Your task to perform on an android device: delete location history Image 0: 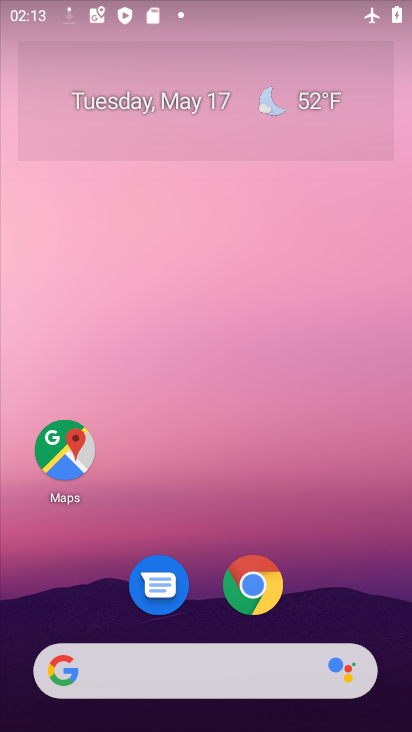
Step 0: drag from (327, 590) to (336, 3)
Your task to perform on an android device: delete location history Image 1: 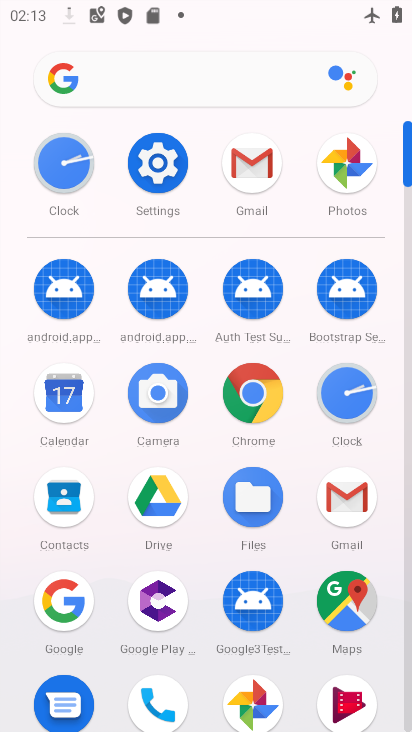
Step 1: click (350, 602)
Your task to perform on an android device: delete location history Image 2: 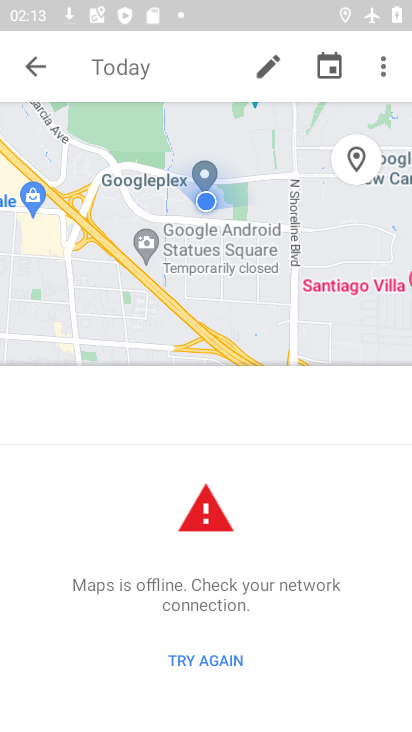
Step 2: click (34, 61)
Your task to perform on an android device: delete location history Image 3: 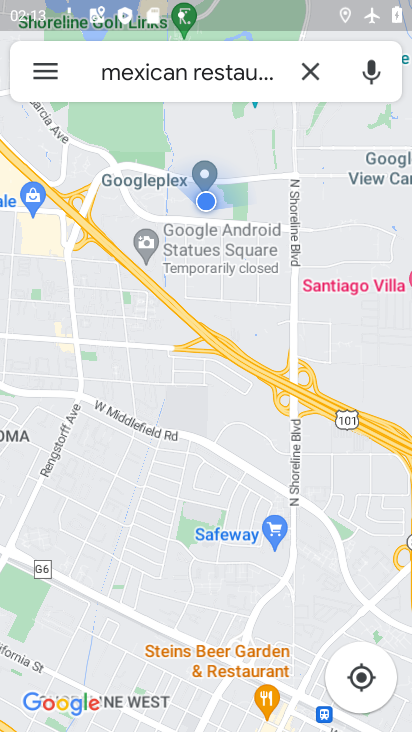
Step 3: click (34, 61)
Your task to perform on an android device: delete location history Image 4: 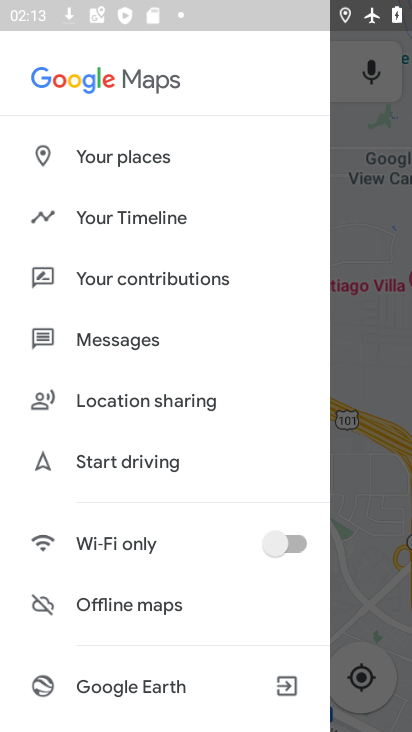
Step 4: click (149, 211)
Your task to perform on an android device: delete location history Image 5: 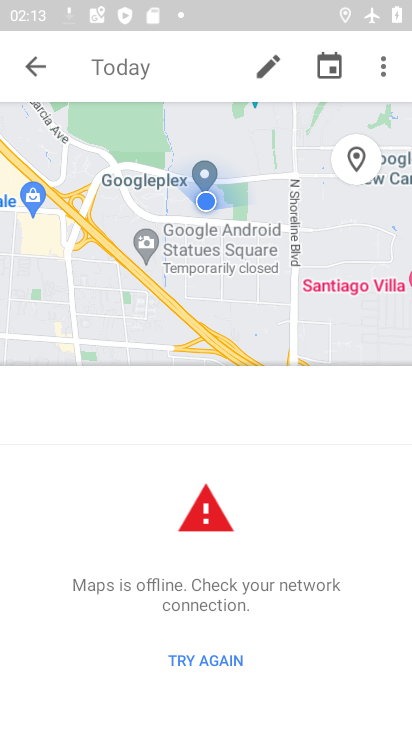
Step 5: click (382, 74)
Your task to perform on an android device: delete location history Image 6: 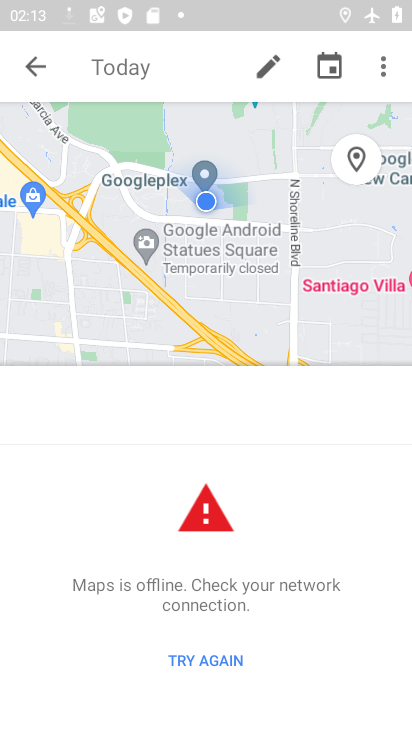
Step 6: click (382, 73)
Your task to perform on an android device: delete location history Image 7: 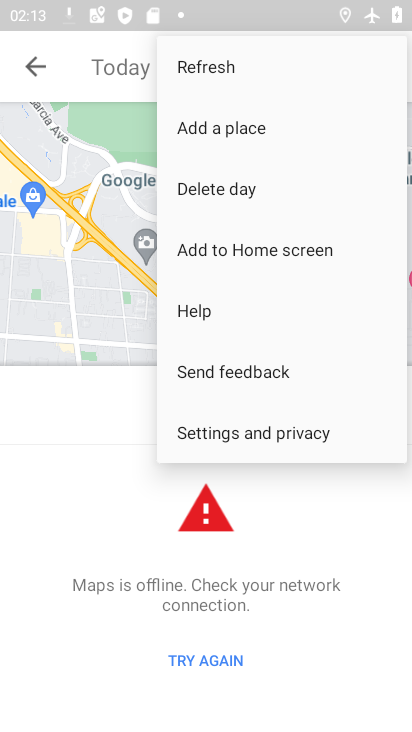
Step 7: click (309, 421)
Your task to perform on an android device: delete location history Image 8: 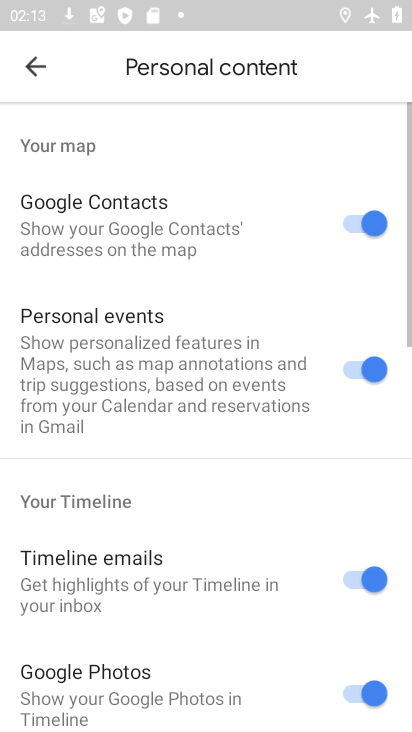
Step 8: drag from (208, 646) to (130, 140)
Your task to perform on an android device: delete location history Image 9: 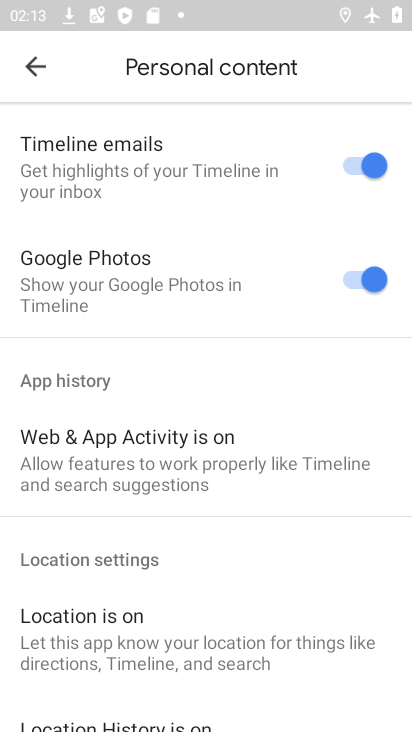
Step 9: drag from (156, 581) to (209, 207)
Your task to perform on an android device: delete location history Image 10: 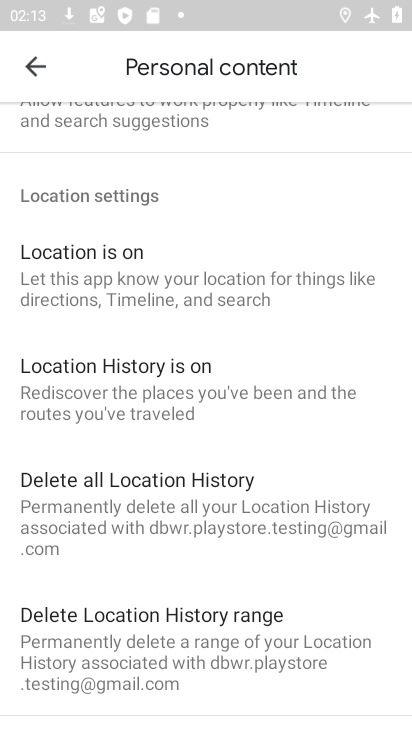
Step 10: click (178, 500)
Your task to perform on an android device: delete location history Image 11: 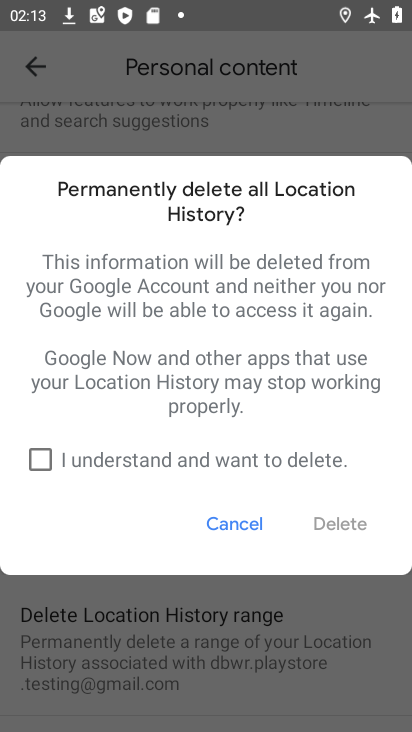
Step 11: click (38, 455)
Your task to perform on an android device: delete location history Image 12: 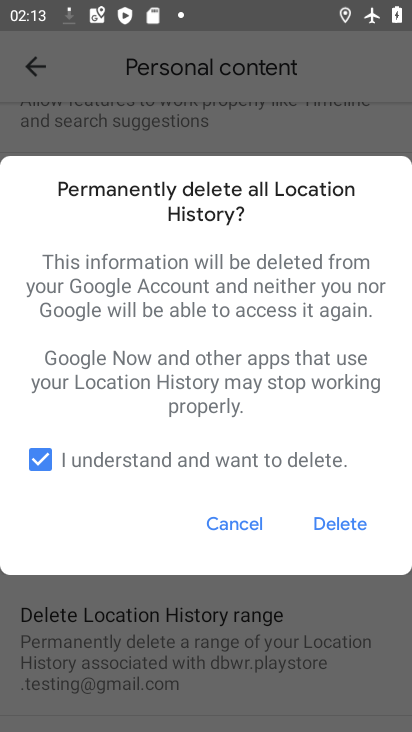
Step 12: click (351, 519)
Your task to perform on an android device: delete location history Image 13: 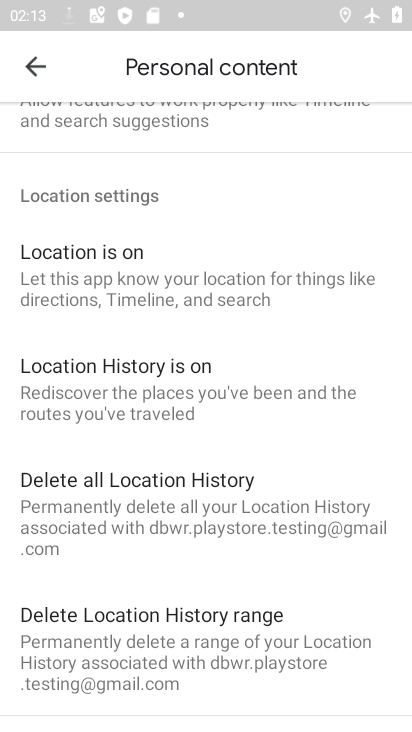
Step 13: task complete